Your task to perform on an android device: empty trash in the gmail app Image 0: 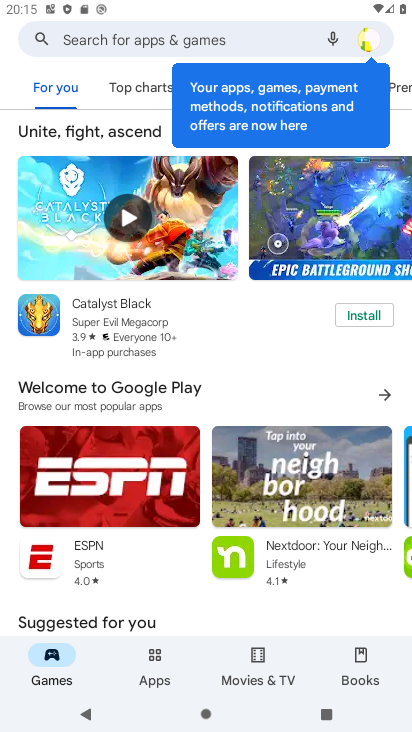
Step 0: press home button
Your task to perform on an android device: empty trash in the gmail app Image 1: 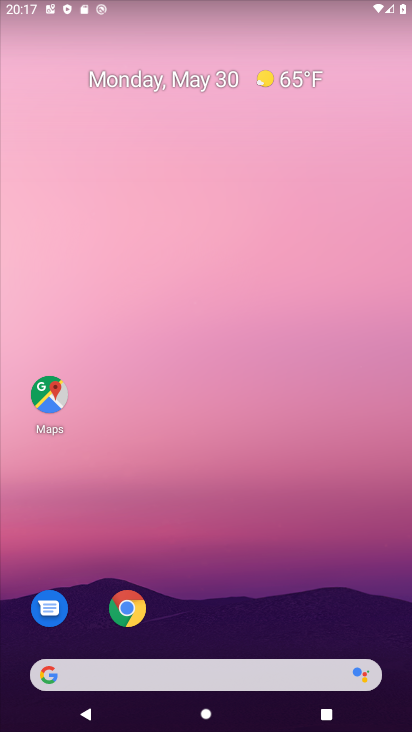
Step 1: drag from (220, 624) to (254, 371)
Your task to perform on an android device: empty trash in the gmail app Image 2: 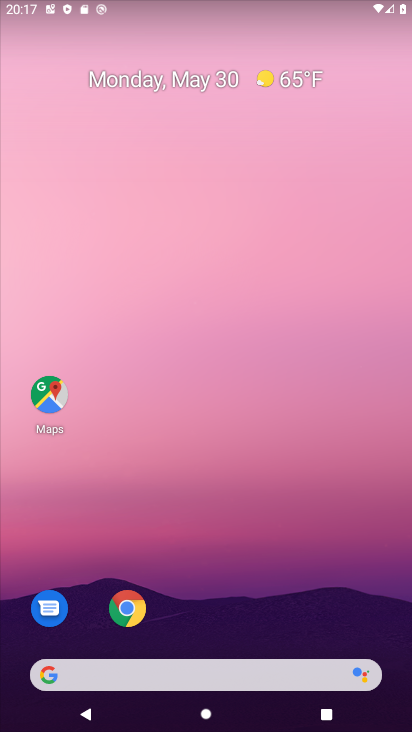
Step 2: drag from (202, 638) to (213, 305)
Your task to perform on an android device: empty trash in the gmail app Image 3: 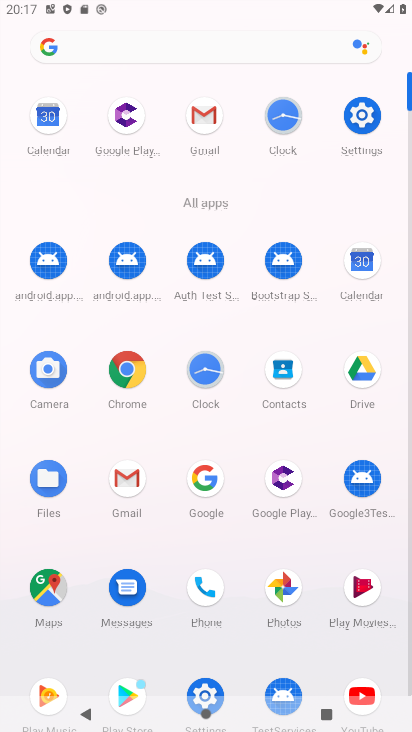
Step 3: click (185, 117)
Your task to perform on an android device: empty trash in the gmail app Image 4: 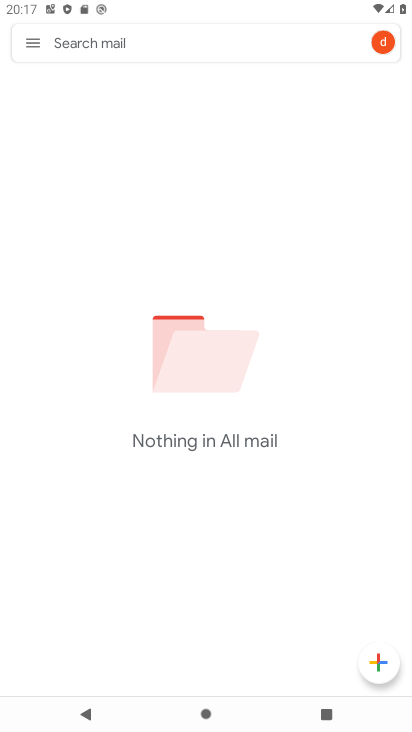
Step 4: click (37, 50)
Your task to perform on an android device: empty trash in the gmail app Image 5: 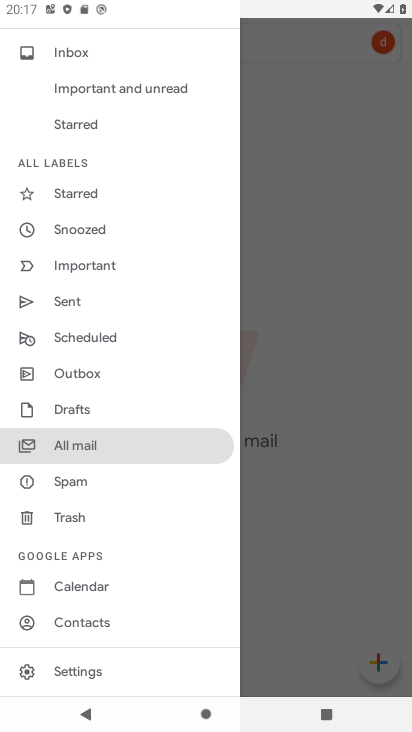
Step 5: click (91, 526)
Your task to perform on an android device: empty trash in the gmail app Image 6: 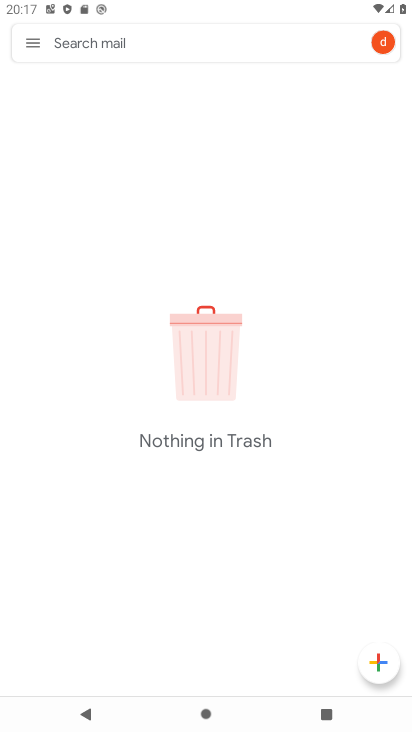
Step 6: task complete